Your task to perform on an android device: Open CNN.com Image 0: 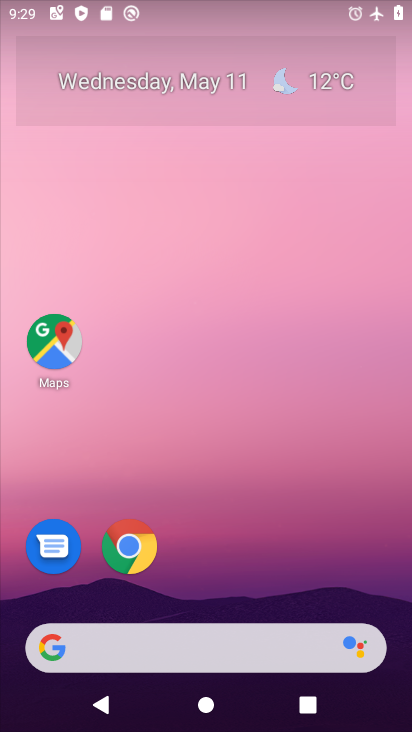
Step 0: click (128, 541)
Your task to perform on an android device: Open CNN.com Image 1: 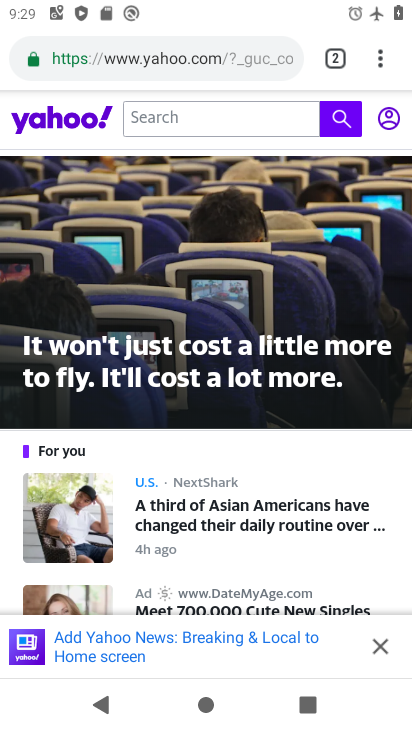
Step 1: click (218, 57)
Your task to perform on an android device: Open CNN.com Image 2: 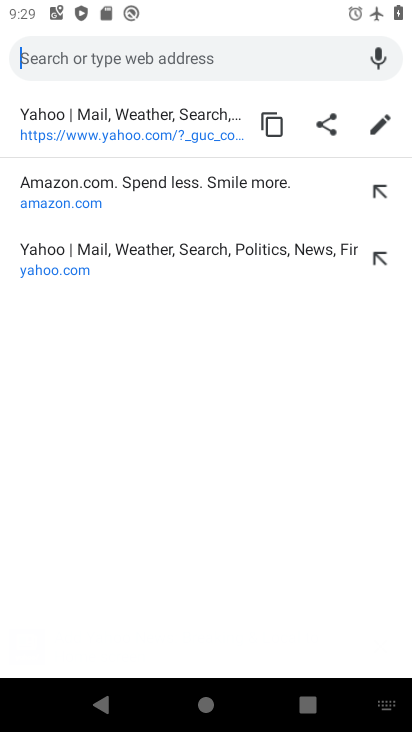
Step 2: type "cnn.com"
Your task to perform on an android device: Open CNN.com Image 3: 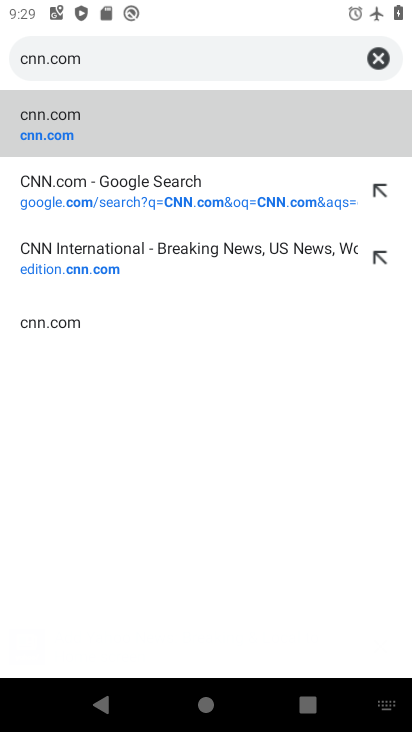
Step 3: click (66, 117)
Your task to perform on an android device: Open CNN.com Image 4: 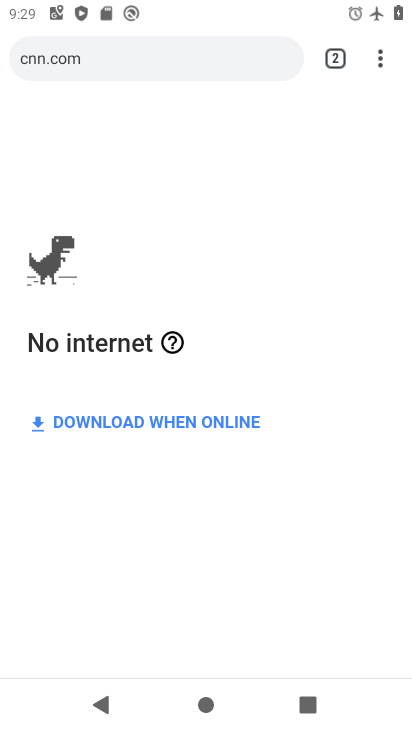
Step 4: task complete